Your task to perform on an android device: change alarm snooze length Image 0: 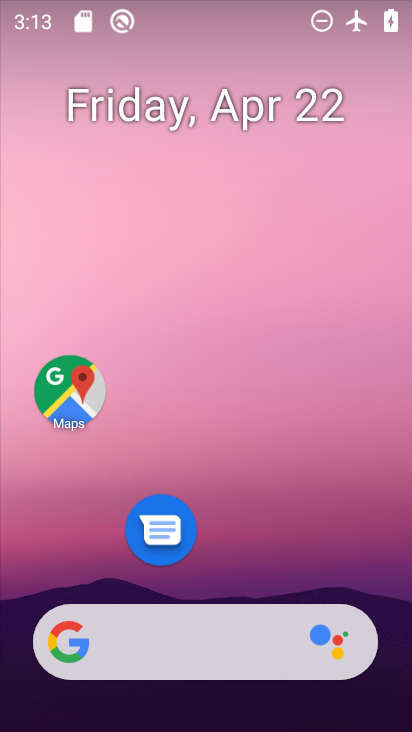
Step 0: drag from (268, 562) to (203, 10)
Your task to perform on an android device: change alarm snooze length Image 1: 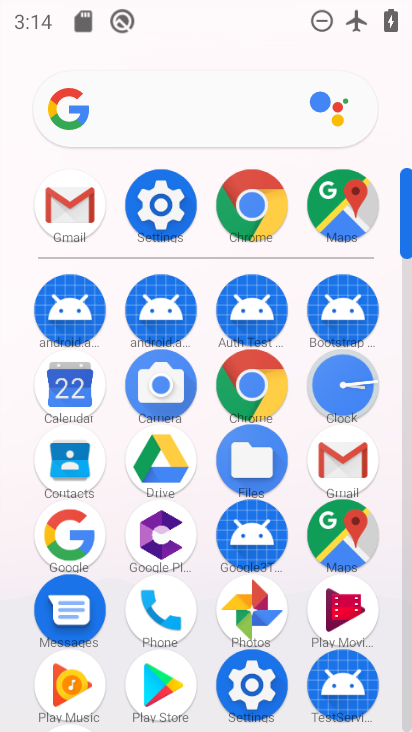
Step 1: click (339, 381)
Your task to perform on an android device: change alarm snooze length Image 2: 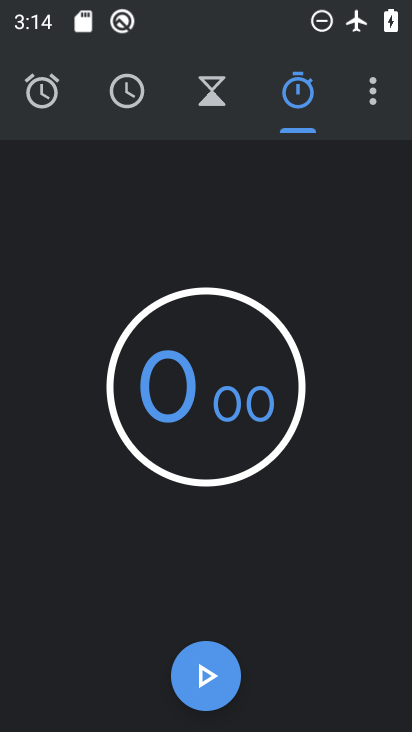
Step 2: click (380, 101)
Your task to perform on an android device: change alarm snooze length Image 3: 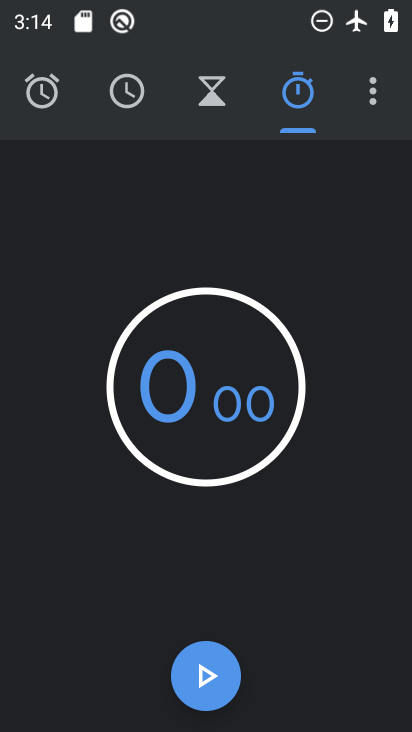
Step 3: click (375, 98)
Your task to perform on an android device: change alarm snooze length Image 4: 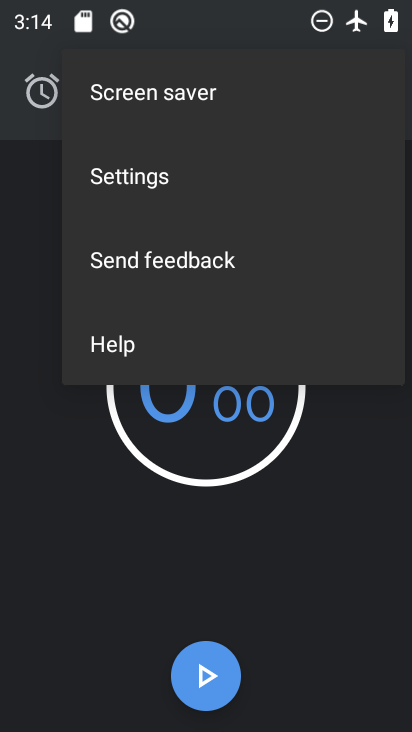
Step 4: click (143, 176)
Your task to perform on an android device: change alarm snooze length Image 5: 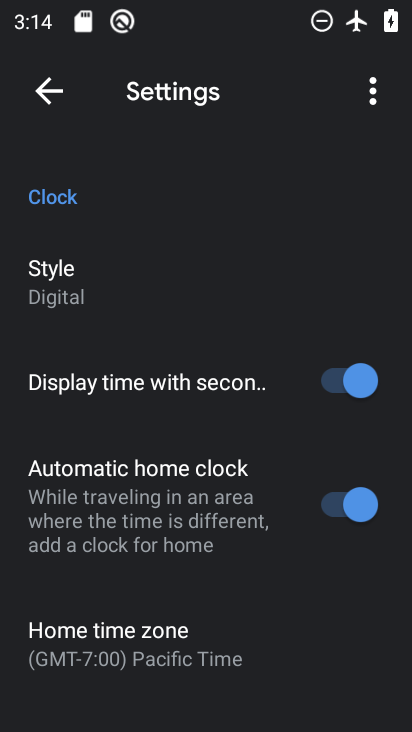
Step 5: drag from (216, 569) to (144, 117)
Your task to perform on an android device: change alarm snooze length Image 6: 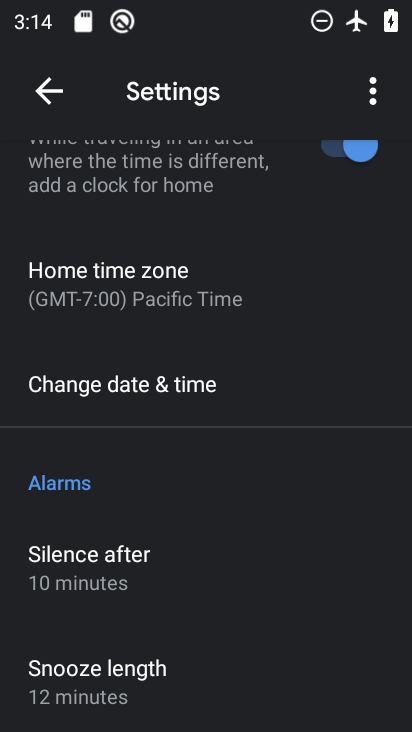
Step 6: drag from (167, 529) to (117, 129)
Your task to perform on an android device: change alarm snooze length Image 7: 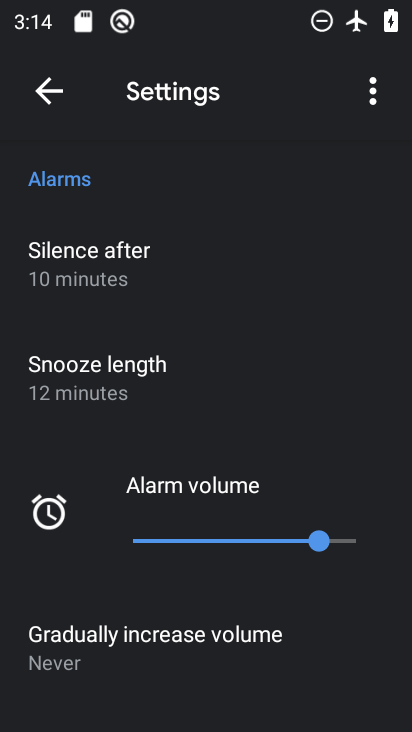
Step 7: click (104, 362)
Your task to perform on an android device: change alarm snooze length Image 8: 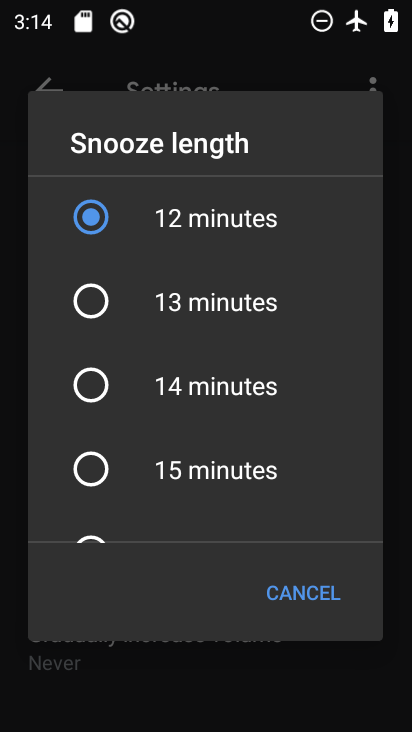
Step 8: click (85, 298)
Your task to perform on an android device: change alarm snooze length Image 9: 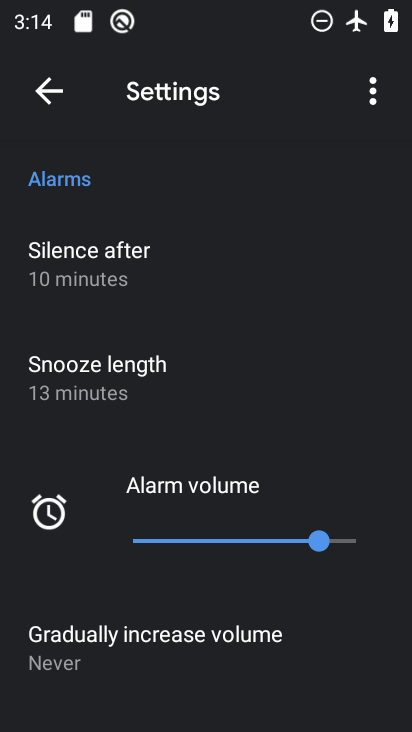
Step 9: task complete